Your task to perform on an android device: Find coffee shops on Maps Image 0: 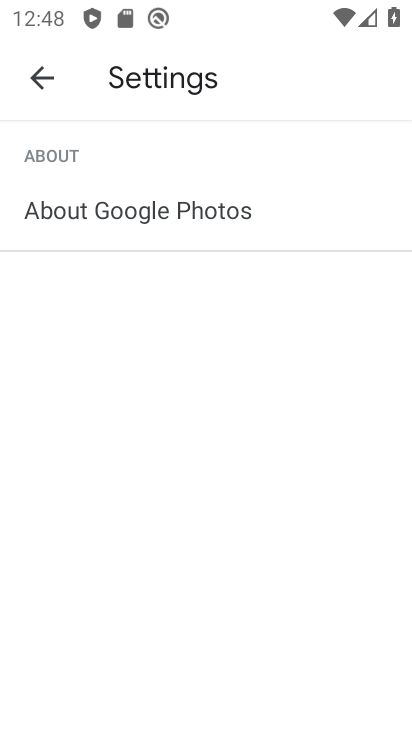
Step 0: press home button
Your task to perform on an android device: Find coffee shops on Maps Image 1: 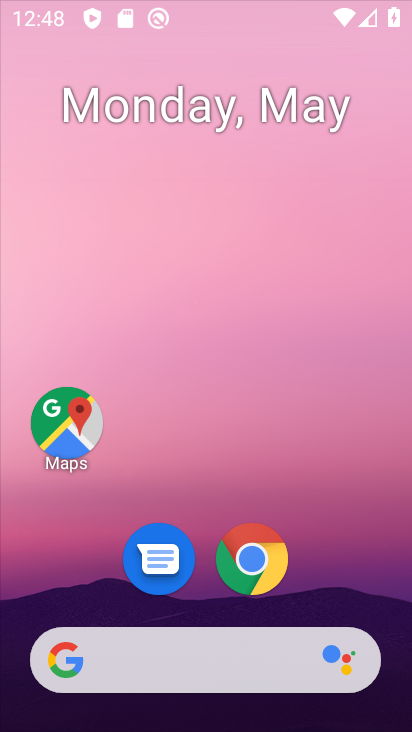
Step 1: click (61, 393)
Your task to perform on an android device: Find coffee shops on Maps Image 2: 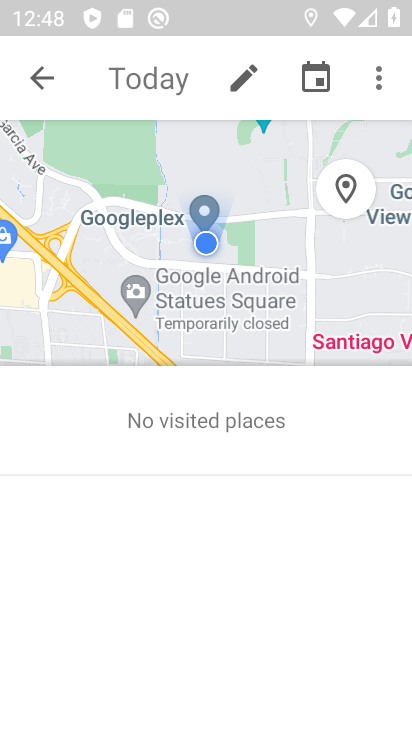
Step 2: click (41, 80)
Your task to perform on an android device: Find coffee shops on Maps Image 3: 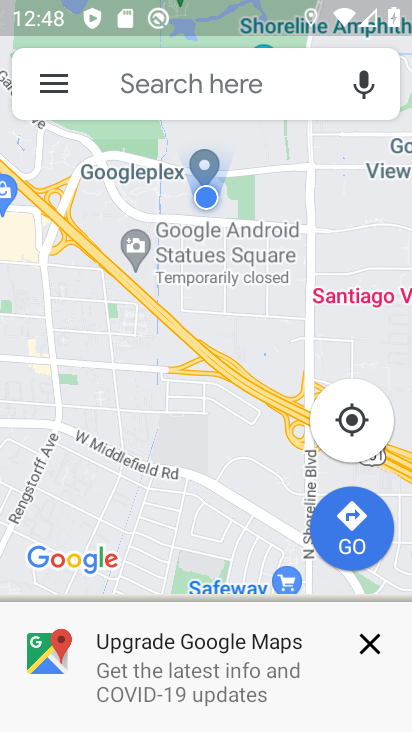
Step 3: click (214, 81)
Your task to perform on an android device: Find coffee shops on Maps Image 4: 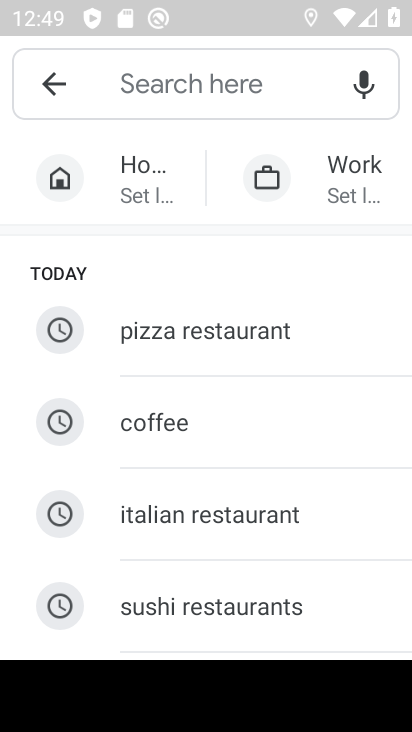
Step 4: type "coffee shops "
Your task to perform on an android device: Find coffee shops on Maps Image 5: 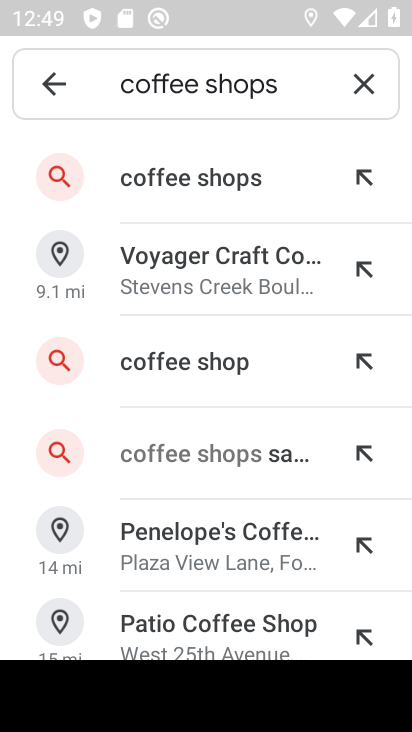
Step 5: click (261, 187)
Your task to perform on an android device: Find coffee shops on Maps Image 6: 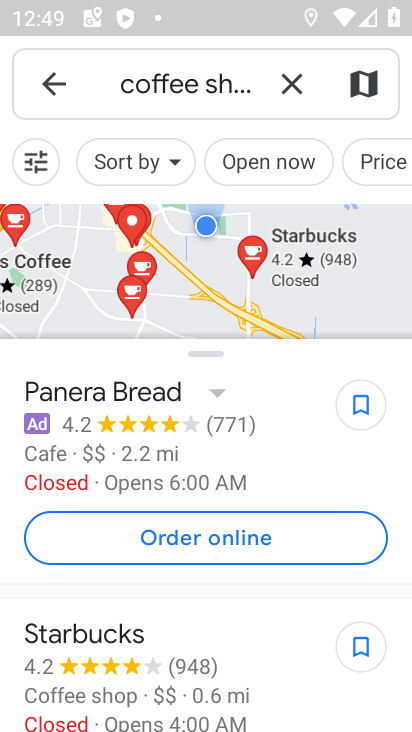
Step 6: task complete